Your task to perform on an android device: open app "Upside-Cash back on gas & food" (install if not already installed) Image 0: 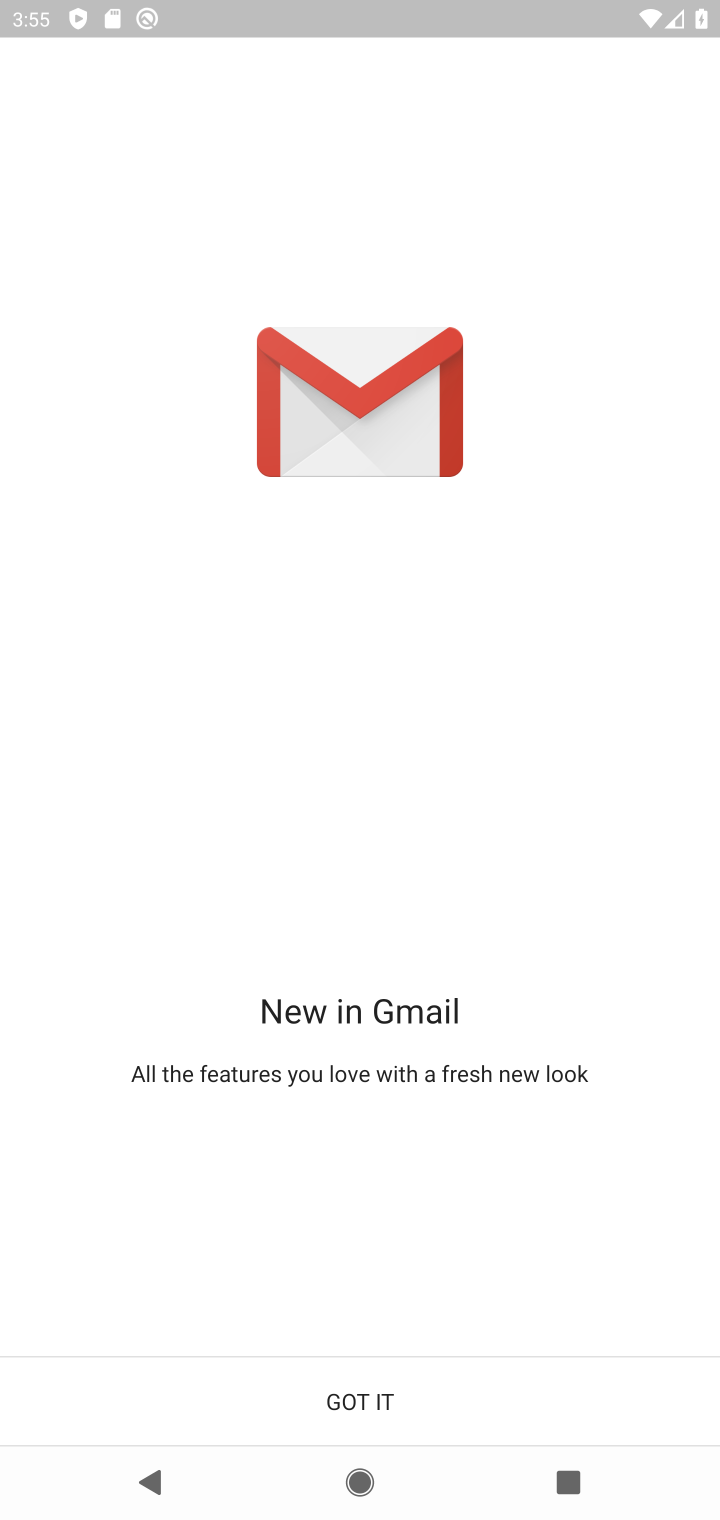
Step 0: press home button
Your task to perform on an android device: open app "Upside-Cash back on gas & food" (install if not already installed) Image 1: 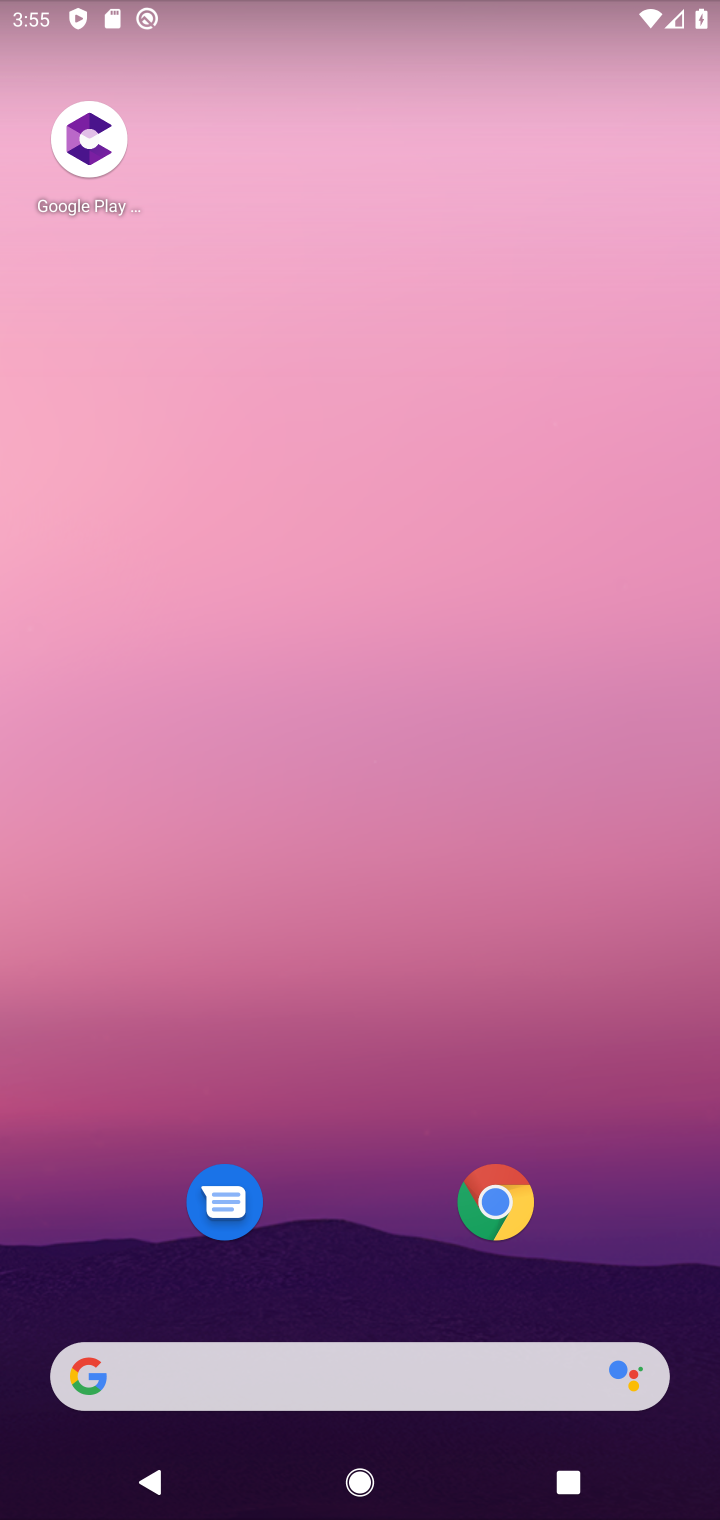
Step 1: drag from (323, 1109) to (212, 3)
Your task to perform on an android device: open app "Upside-Cash back on gas & food" (install if not already installed) Image 2: 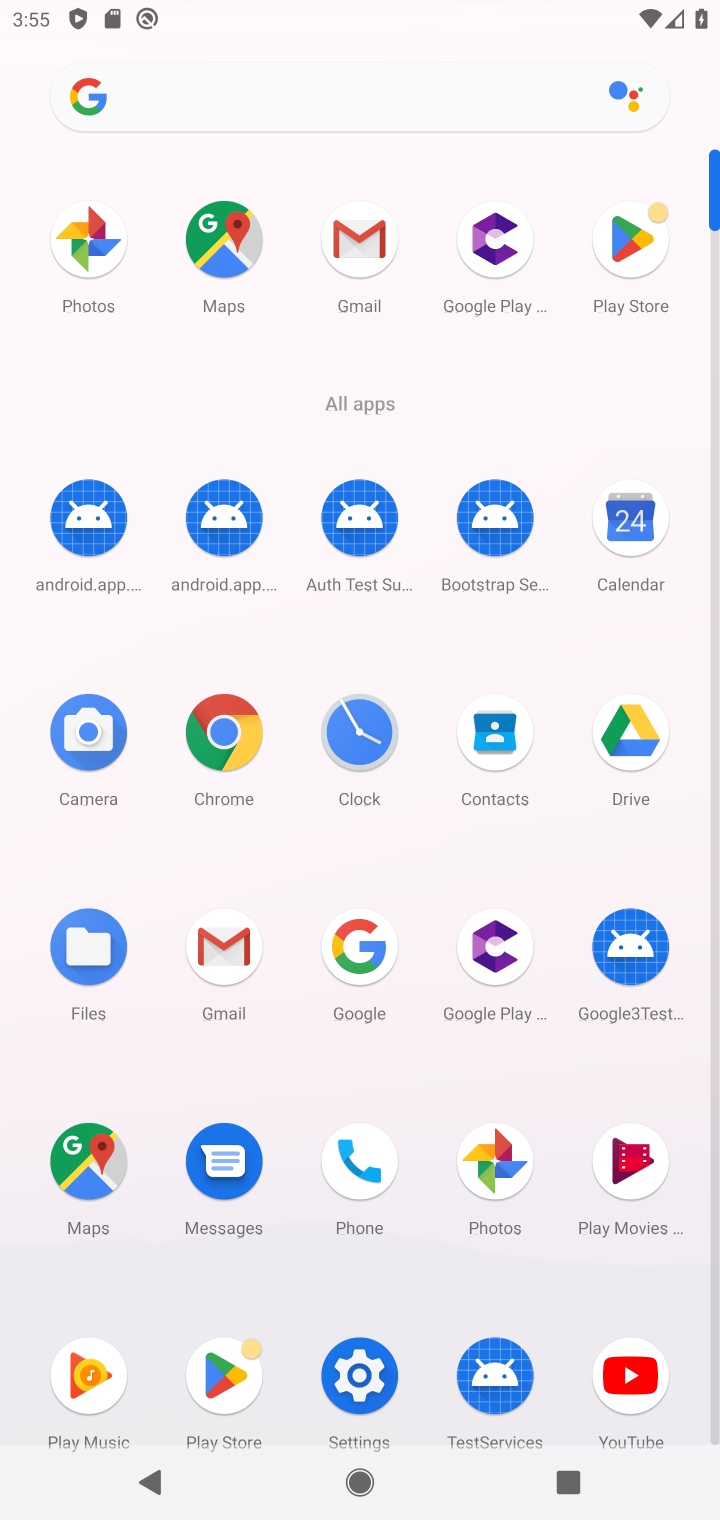
Step 2: click (617, 242)
Your task to perform on an android device: open app "Upside-Cash back on gas & food" (install if not already installed) Image 3: 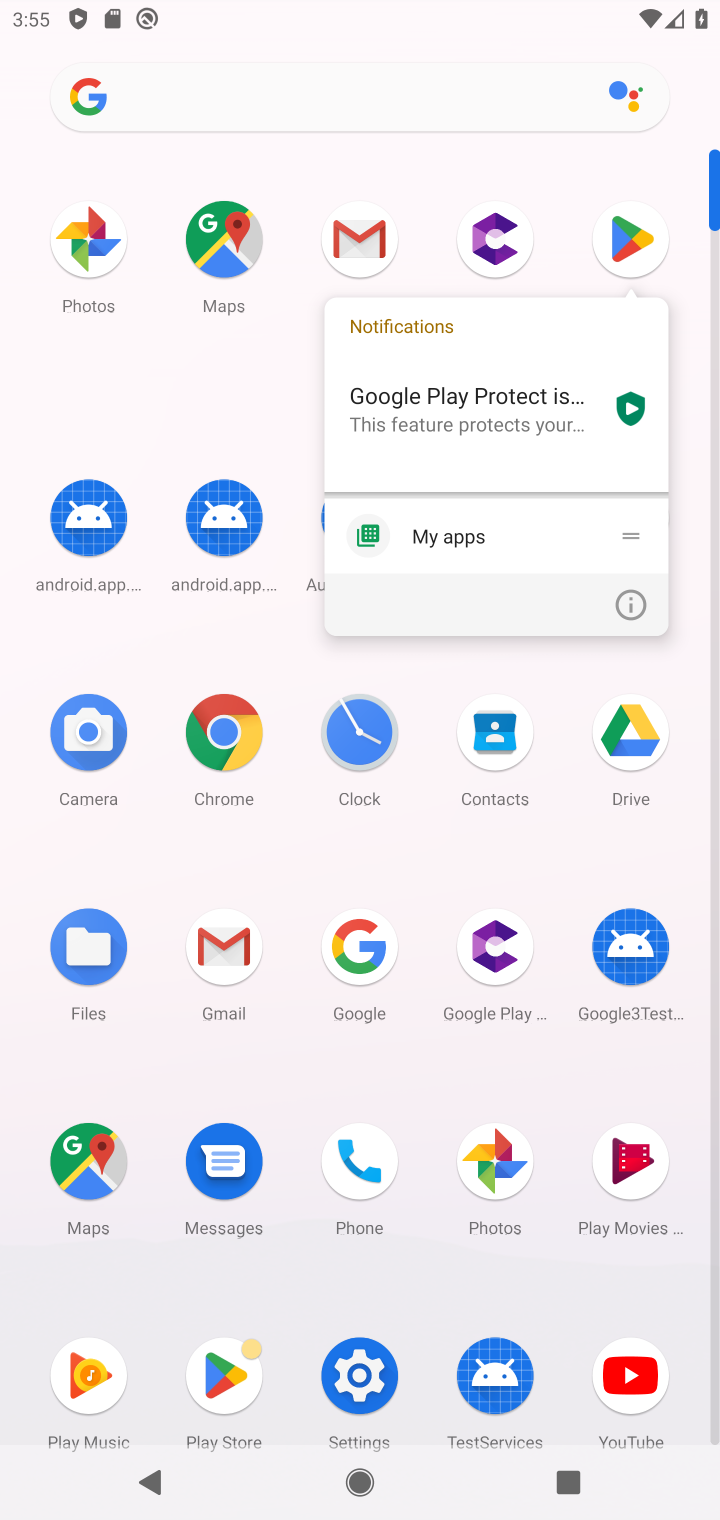
Step 3: click (618, 244)
Your task to perform on an android device: open app "Upside-Cash back on gas & food" (install if not already installed) Image 4: 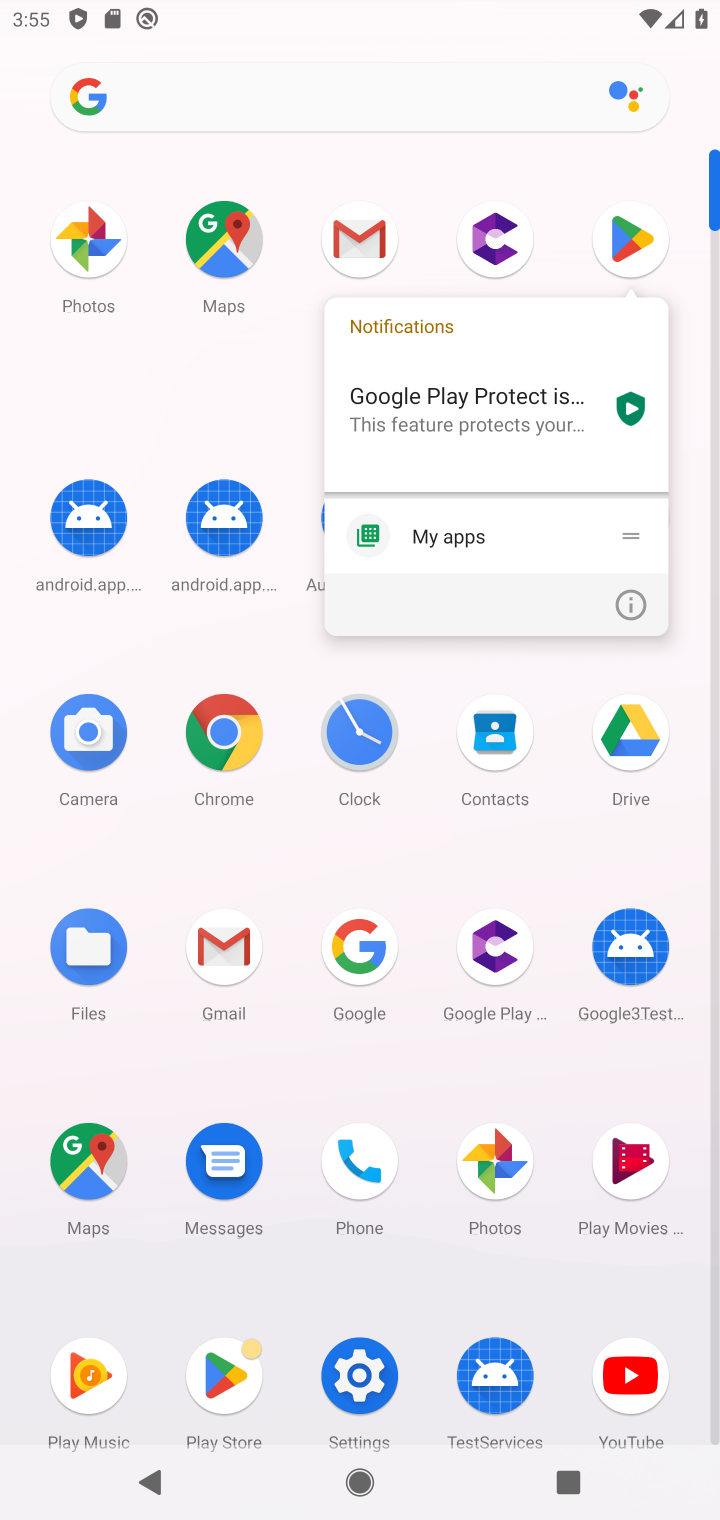
Step 4: click (614, 242)
Your task to perform on an android device: open app "Upside-Cash back on gas & food" (install if not already installed) Image 5: 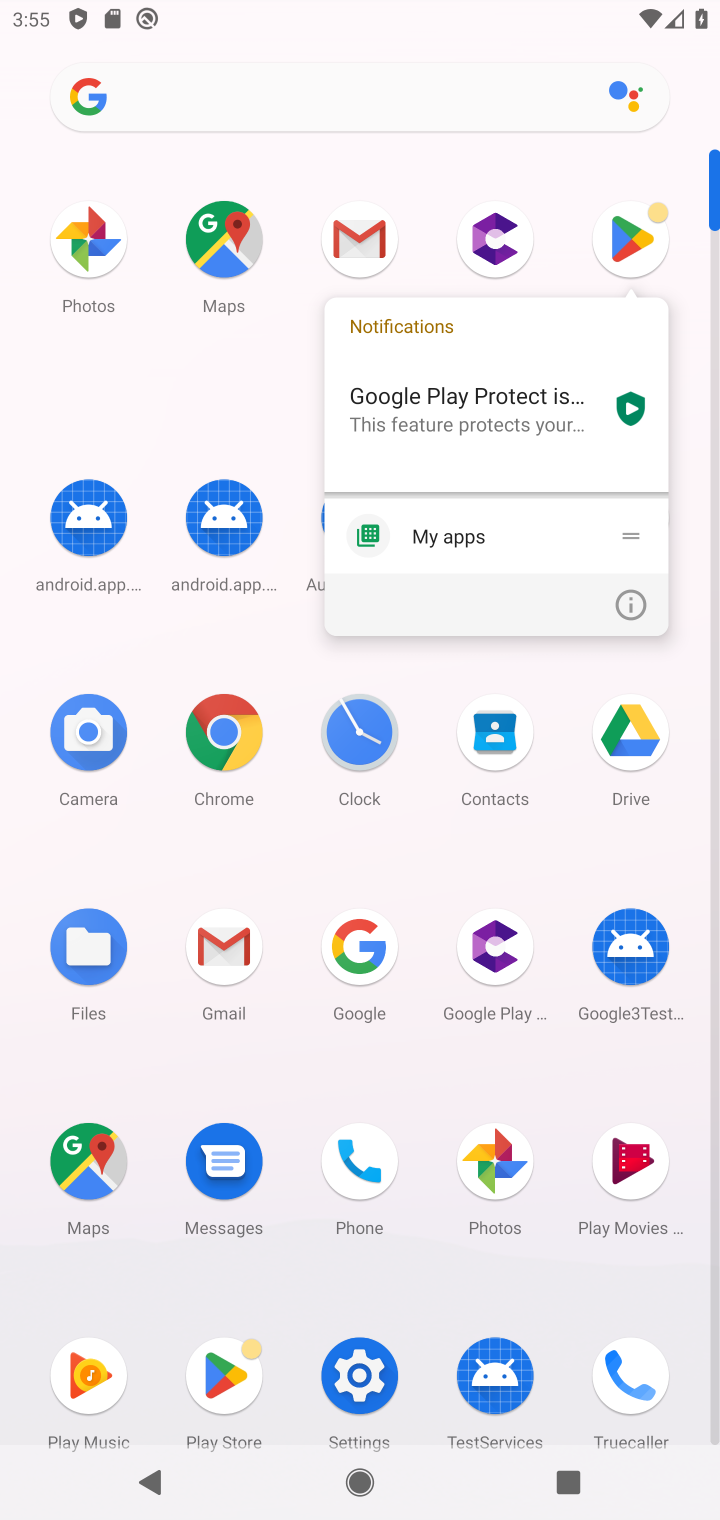
Step 5: click (614, 242)
Your task to perform on an android device: open app "Upside-Cash back on gas & food" (install if not already installed) Image 6: 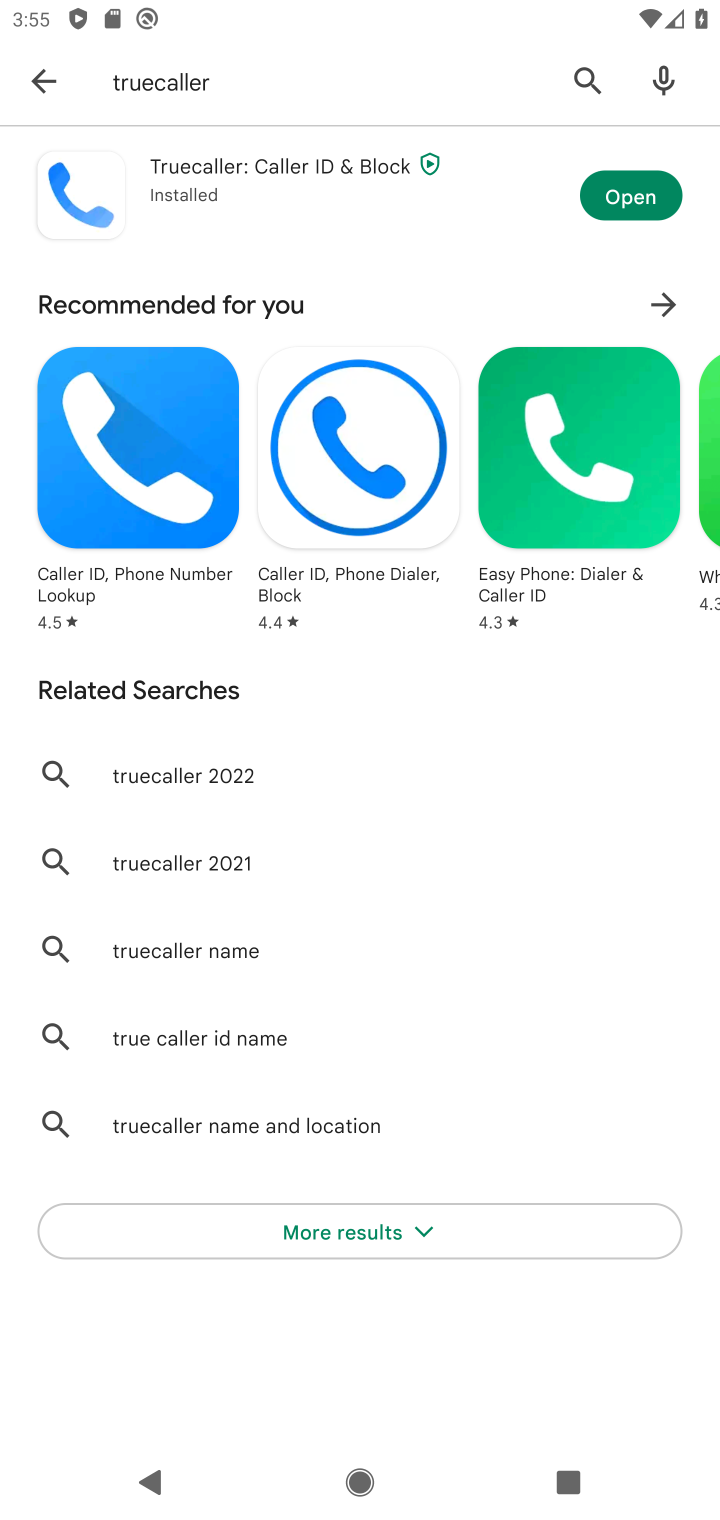
Step 6: click (233, 72)
Your task to perform on an android device: open app "Upside-Cash back on gas & food" (install if not already installed) Image 7: 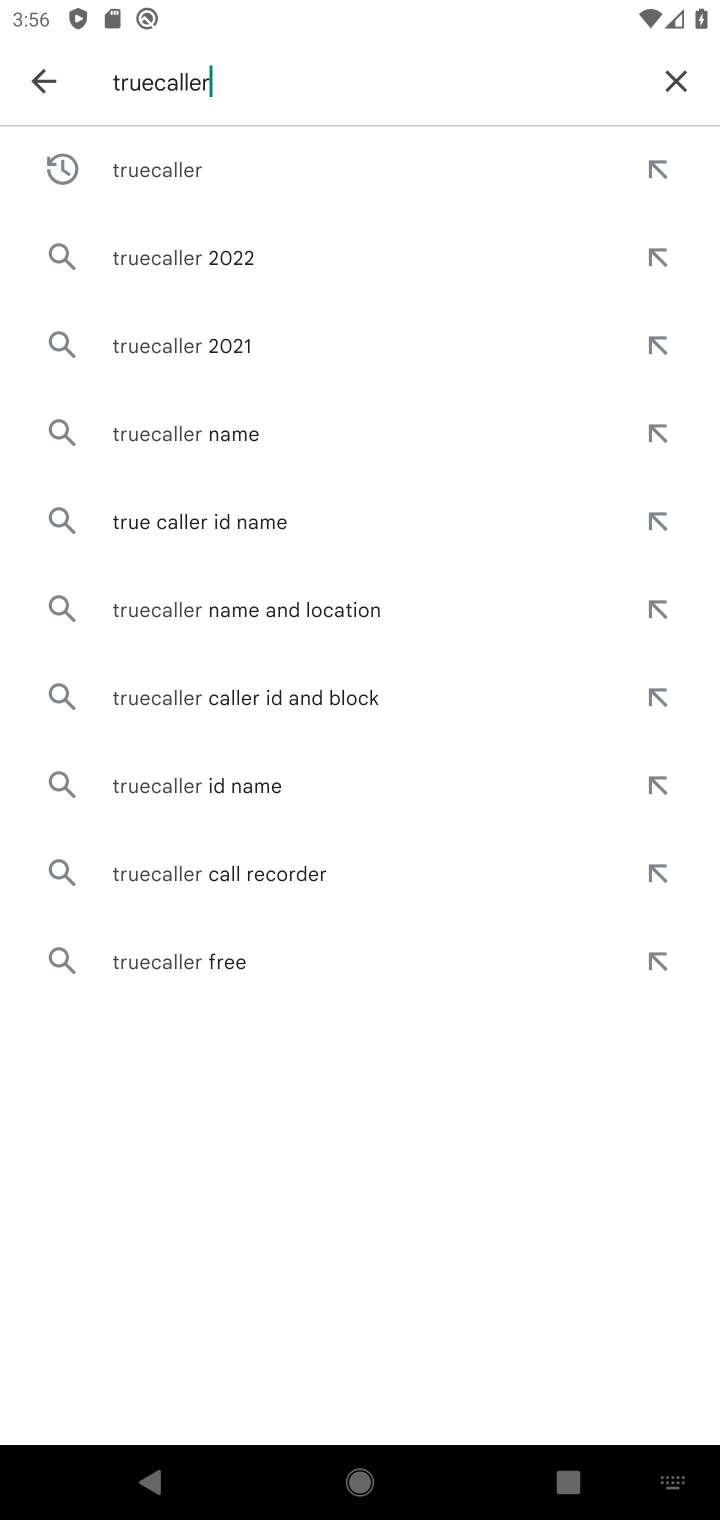
Step 7: click (674, 72)
Your task to perform on an android device: open app "Upside-Cash back on gas & food" (install if not already installed) Image 8: 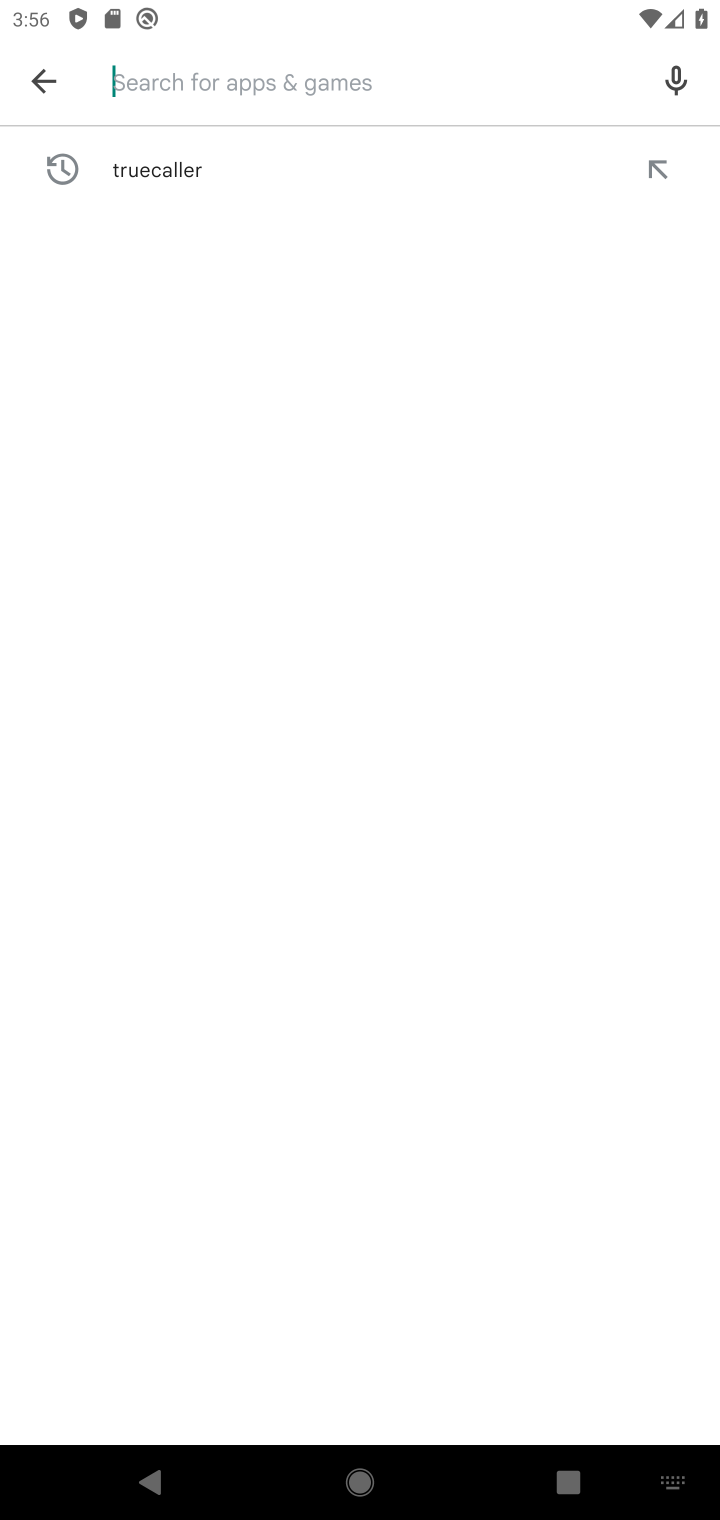
Step 8: type "Upside"
Your task to perform on an android device: open app "Upside-Cash back on gas & food" (install if not already installed) Image 9: 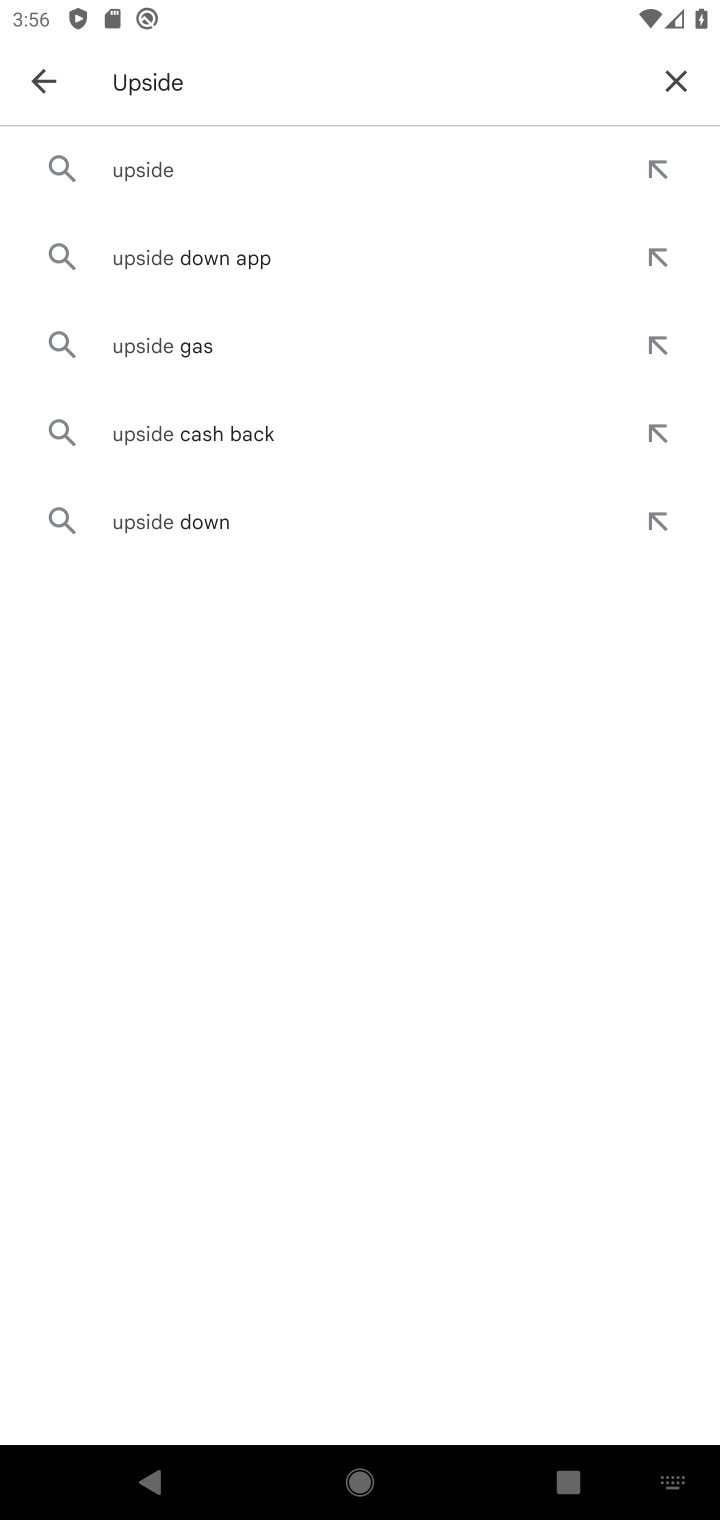
Step 9: click (138, 161)
Your task to perform on an android device: open app "Upside-Cash back on gas & food" (install if not already installed) Image 10: 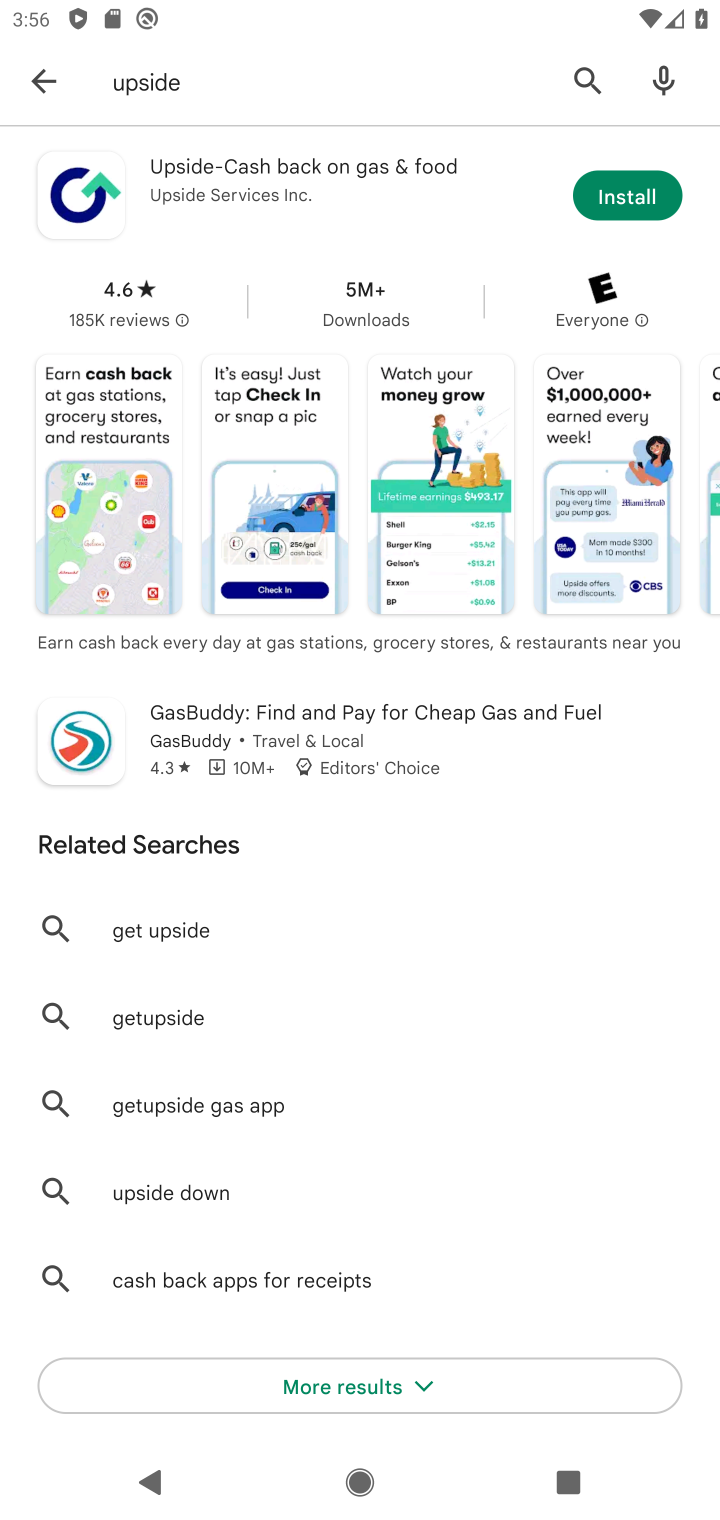
Step 10: click (641, 196)
Your task to perform on an android device: open app "Upside-Cash back on gas & food" (install if not already installed) Image 11: 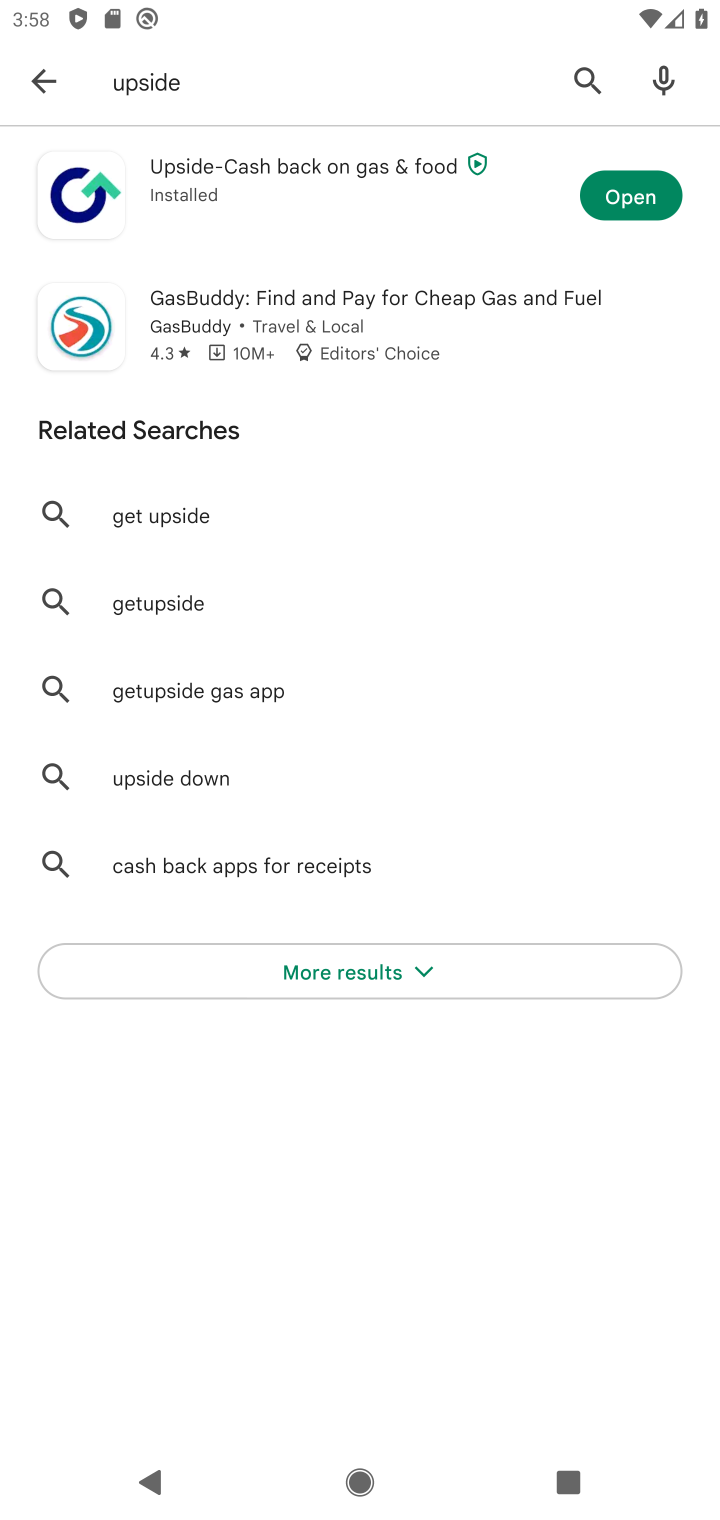
Step 11: click (623, 201)
Your task to perform on an android device: open app "Upside-Cash back on gas & food" (install if not already installed) Image 12: 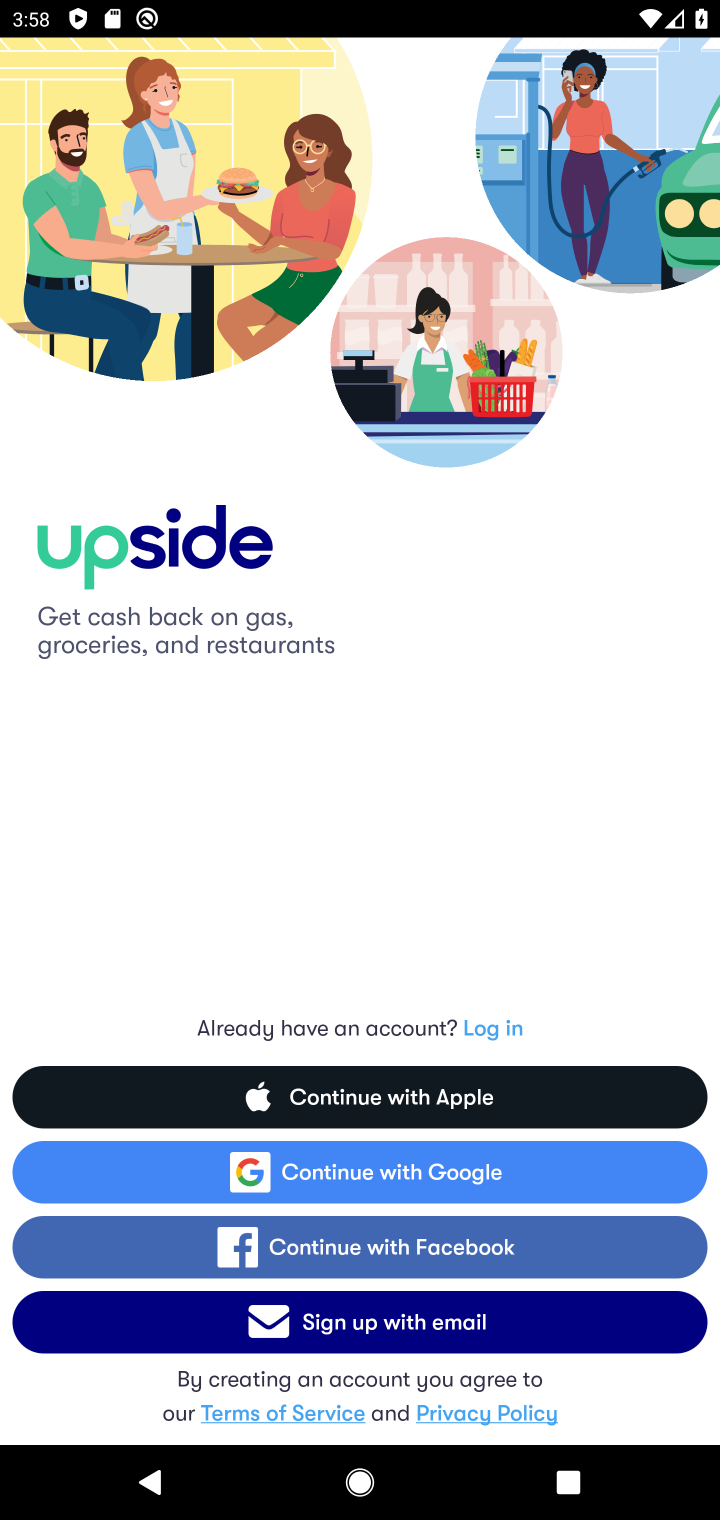
Step 12: click (457, 1170)
Your task to perform on an android device: open app "Upside-Cash back on gas & food" (install if not already installed) Image 13: 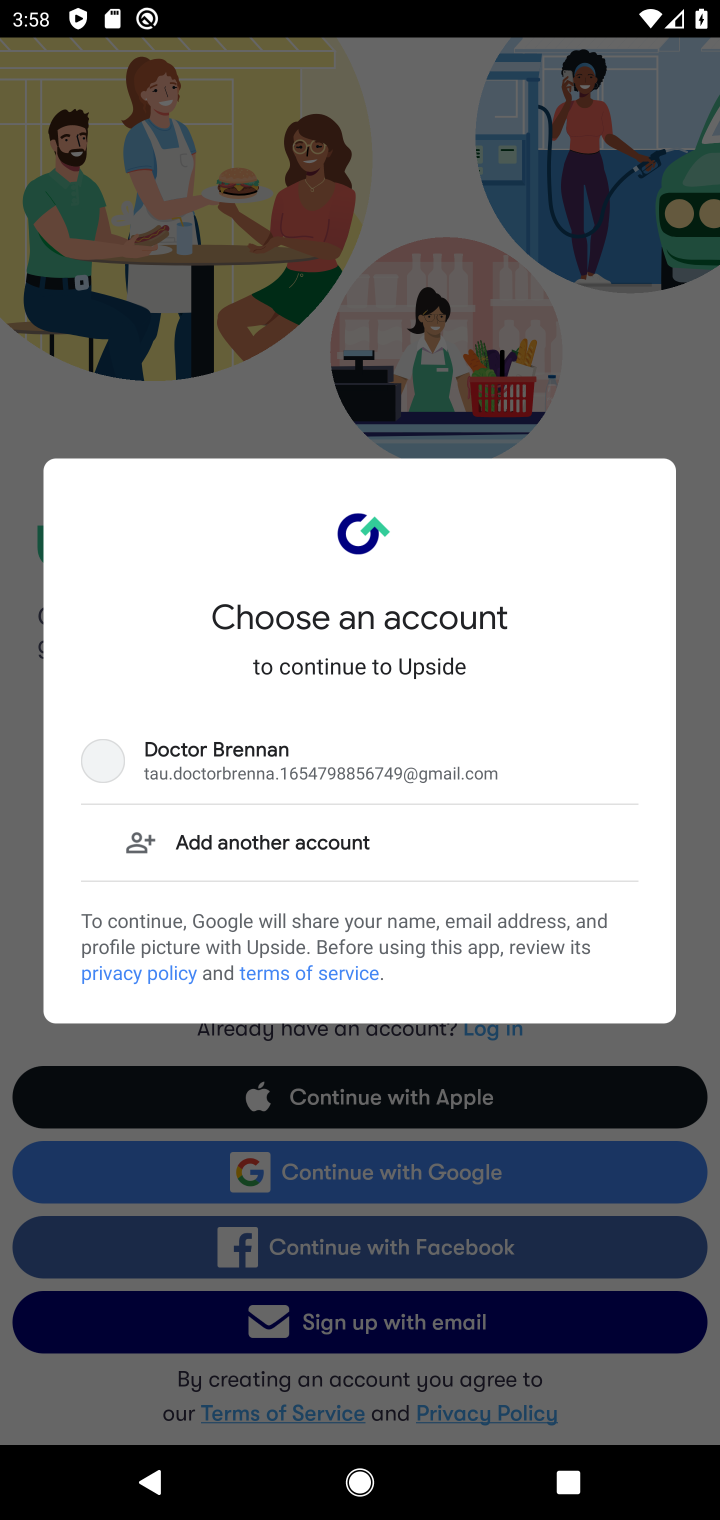
Step 13: click (314, 751)
Your task to perform on an android device: open app "Upside-Cash back on gas & food" (install if not already installed) Image 14: 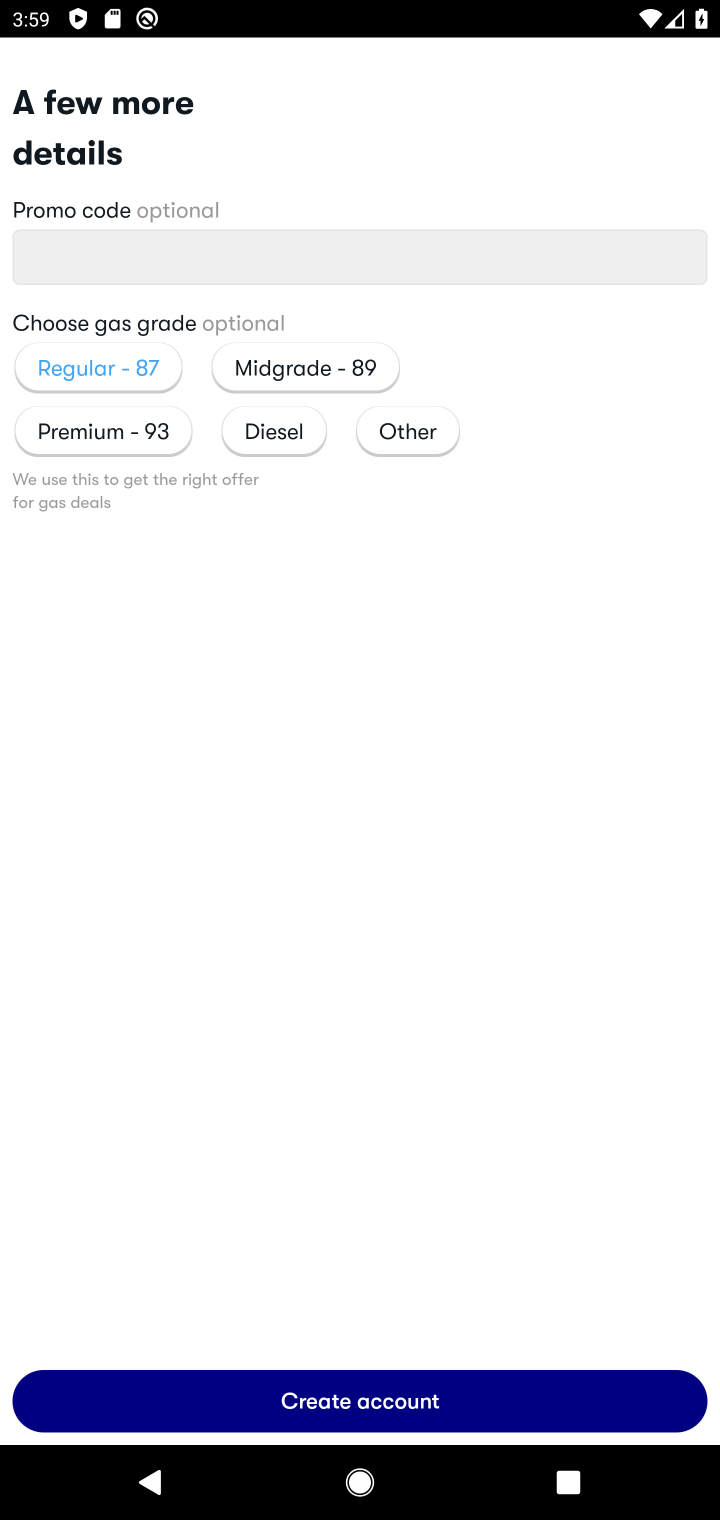
Step 14: task complete